Your task to perform on an android device: Open CNN.com Image 0: 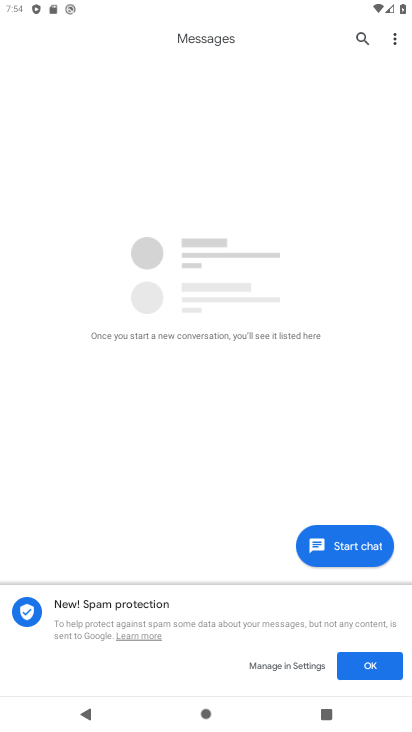
Step 0: press home button
Your task to perform on an android device: Open CNN.com Image 1: 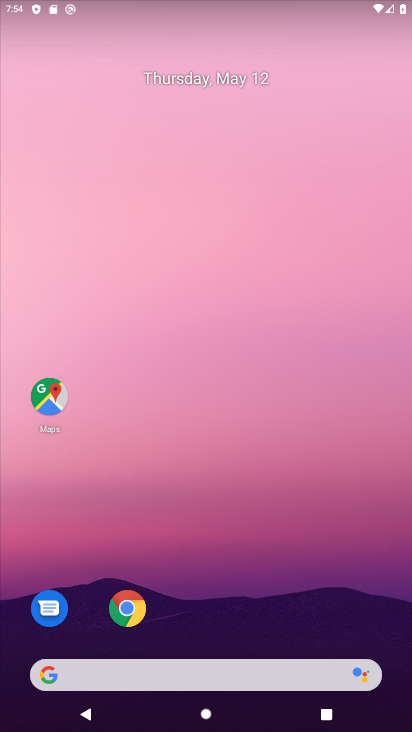
Step 1: click (399, 451)
Your task to perform on an android device: Open CNN.com Image 2: 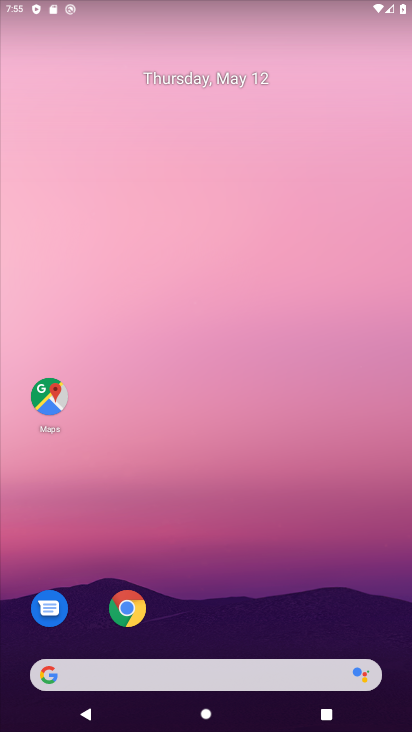
Step 2: click (133, 618)
Your task to perform on an android device: Open CNN.com Image 3: 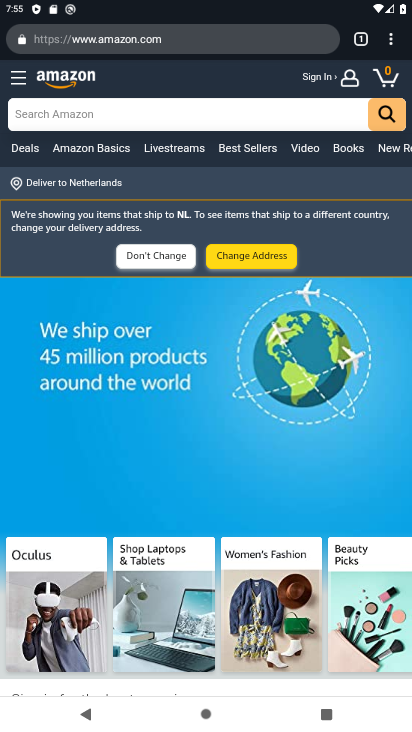
Step 3: press back button
Your task to perform on an android device: Open CNN.com Image 4: 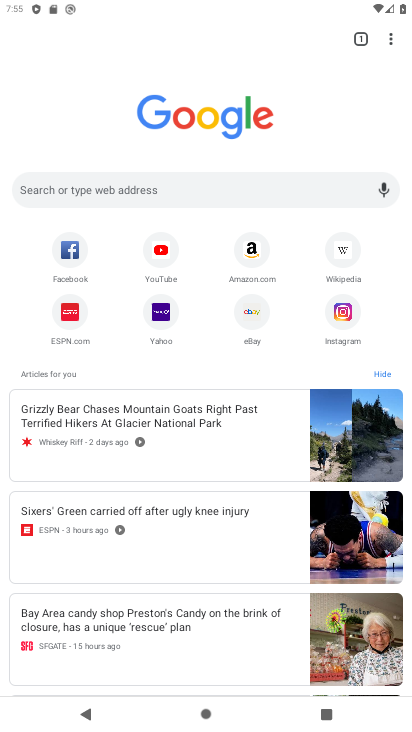
Step 4: click (255, 201)
Your task to perform on an android device: Open CNN.com Image 5: 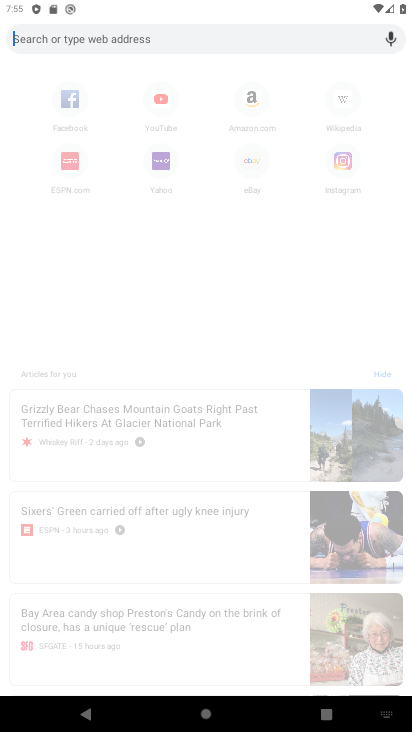
Step 5: type "www.cnn.com"
Your task to perform on an android device: Open CNN.com Image 6: 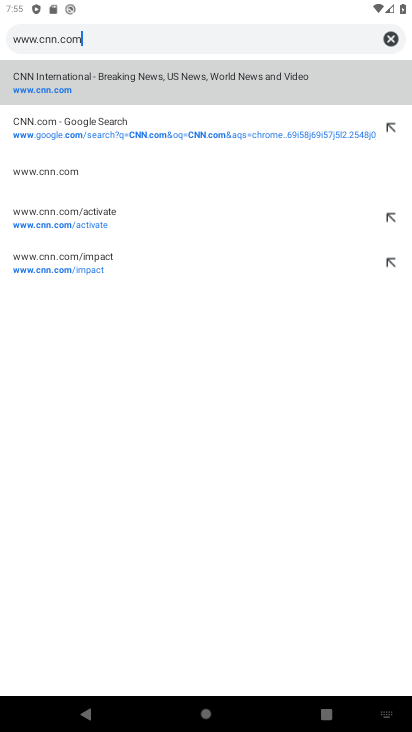
Step 6: click (106, 94)
Your task to perform on an android device: Open CNN.com Image 7: 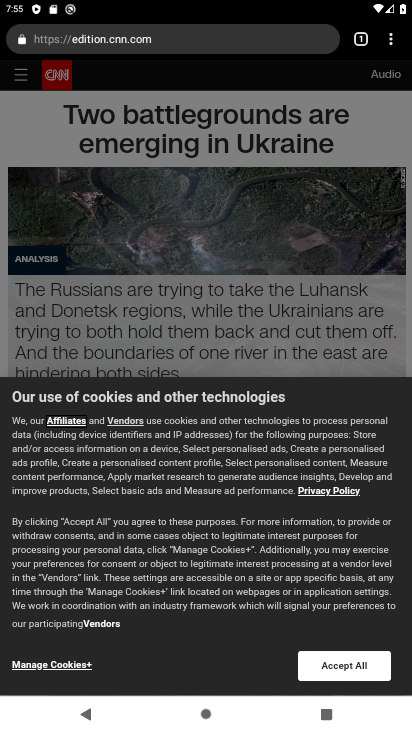
Step 7: task complete